Your task to perform on an android device: turn pop-ups off in chrome Image 0: 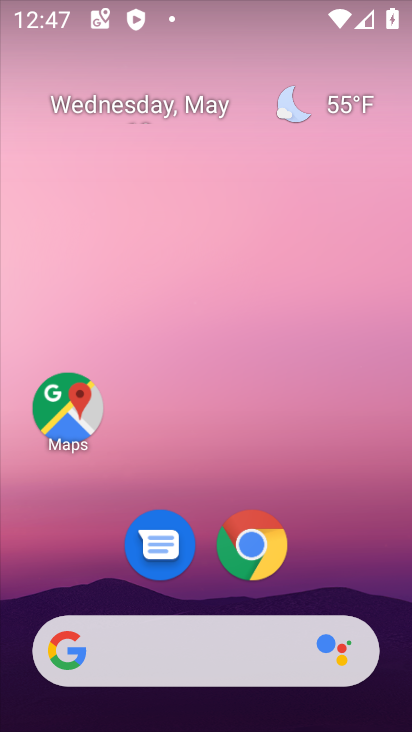
Step 0: click (267, 542)
Your task to perform on an android device: turn pop-ups off in chrome Image 1: 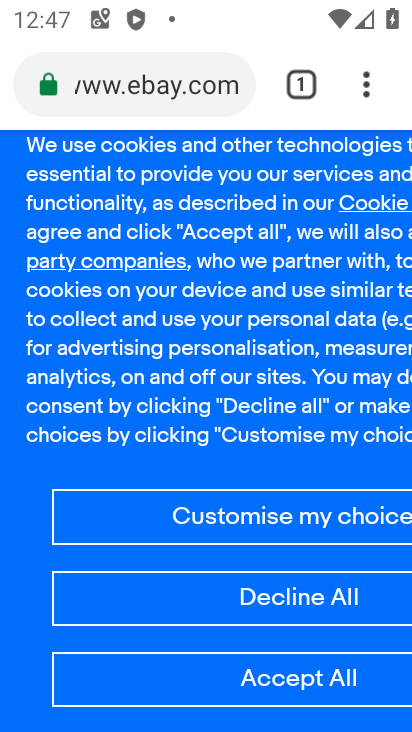
Step 1: click (371, 86)
Your task to perform on an android device: turn pop-ups off in chrome Image 2: 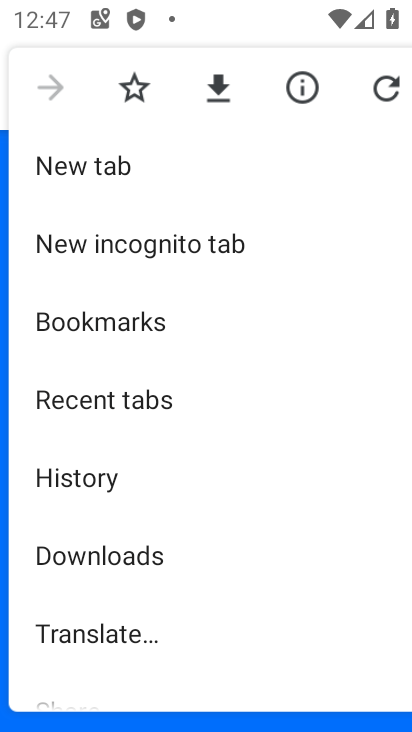
Step 2: drag from (276, 451) to (281, 63)
Your task to perform on an android device: turn pop-ups off in chrome Image 3: 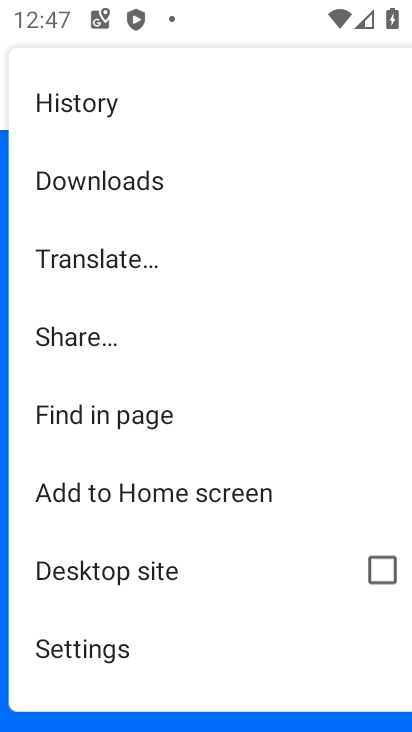
Step 3: click (119, 642)
Your task to perform on an android device: turn pop-ups off in chrome Image 4: 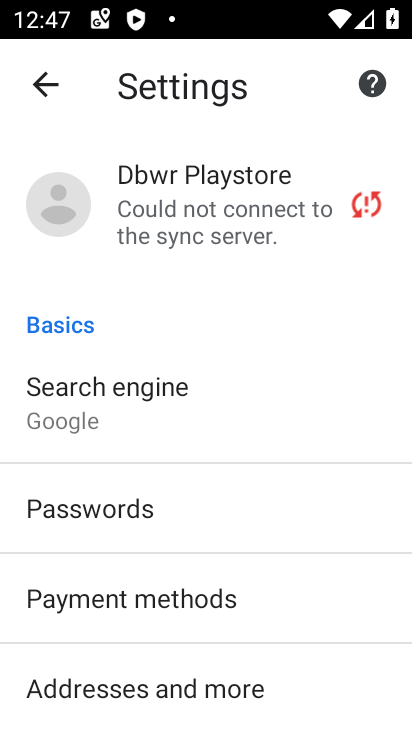
Step 4: drag from (221, 605) to (209, 83)
Your task to perform on an android device: turn pop-ups off in chrome Image 5: 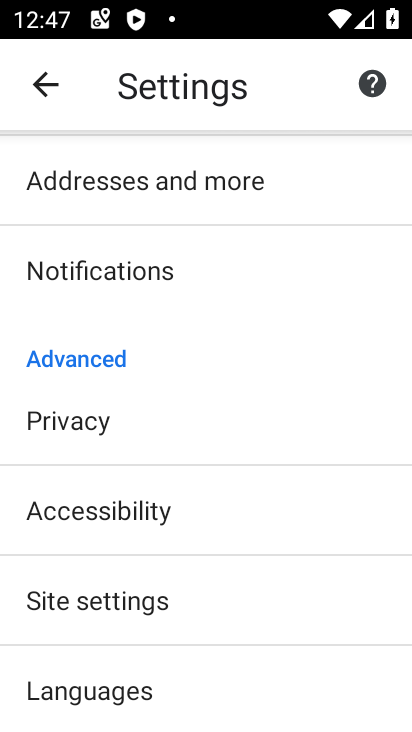
Step 5: click (180, 589)
Your task to perform on an android device: turn pop-ups off in chrome Image 6: 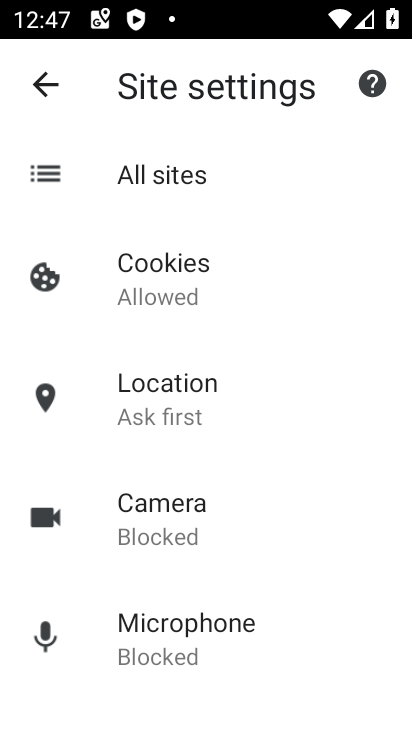
Step 6: drag from (205, 582) to (212, 186)
Your task to perform on an android device: turn pop-ups off in chrome Image 7: 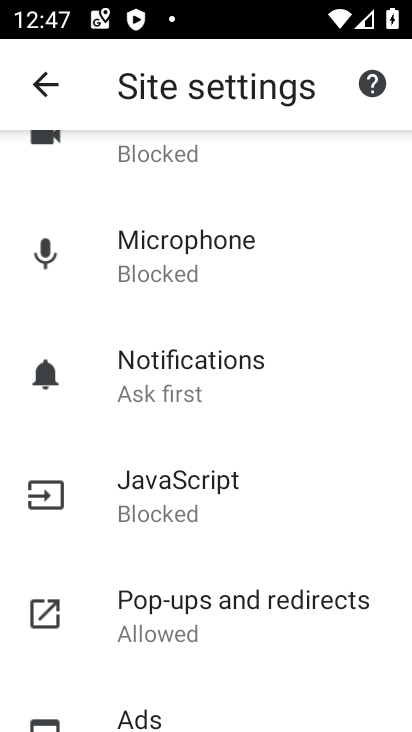
Step 7: click (198, 603)
Your task to perform on an android device: turn pop-ups off in chrome Image 8: 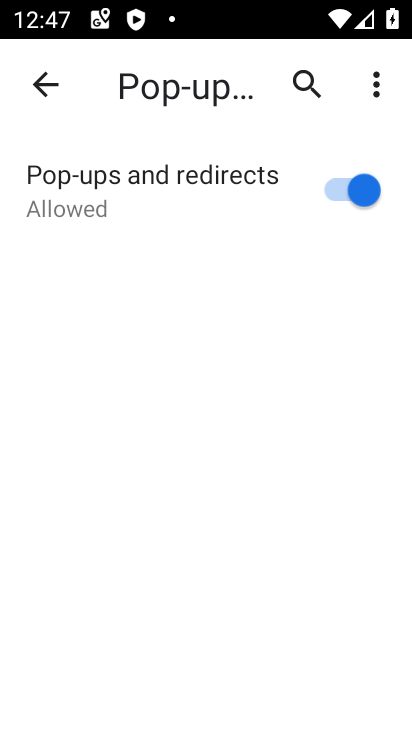
Step 8: click (335, 187)
Your task to perform on an android device: turn pop-ups off in chrome Image 9: 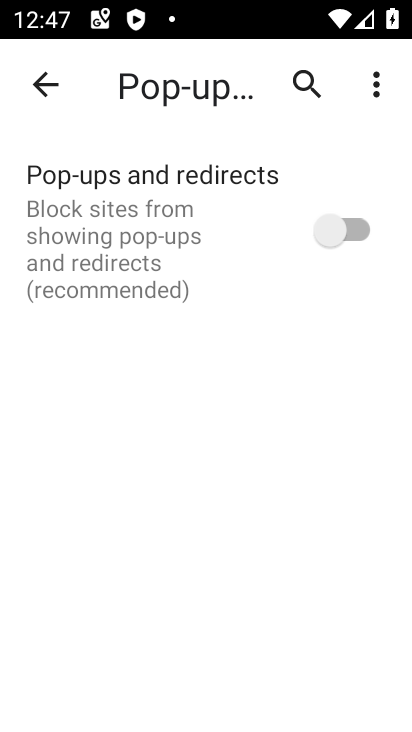
Step 9: task complete